Your task to perform on an android device: Go to Wikipedia Image 0: 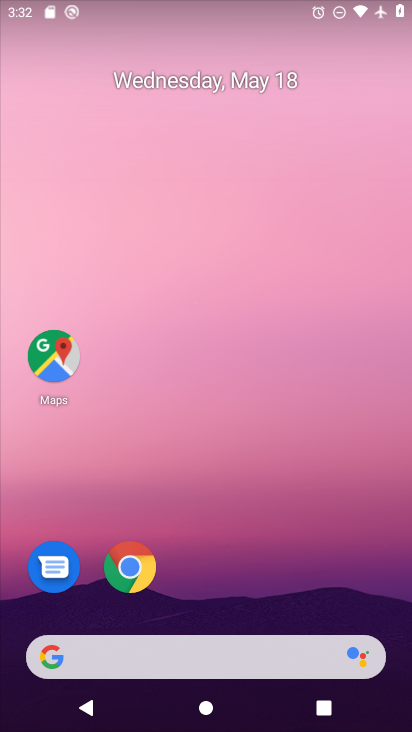
Step 0: click (121, 581)
Your task to perform on an android device: Go to Wikipedia Image 1: 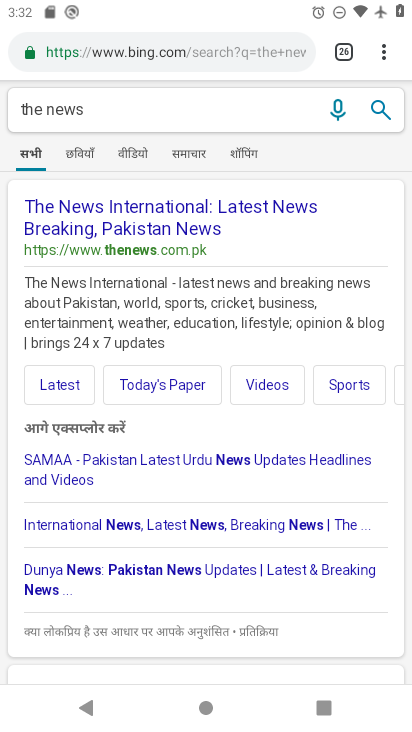
Step 1: click (373, 58)
Your task to perform on an android device: Go to Wikipedia Image 2: 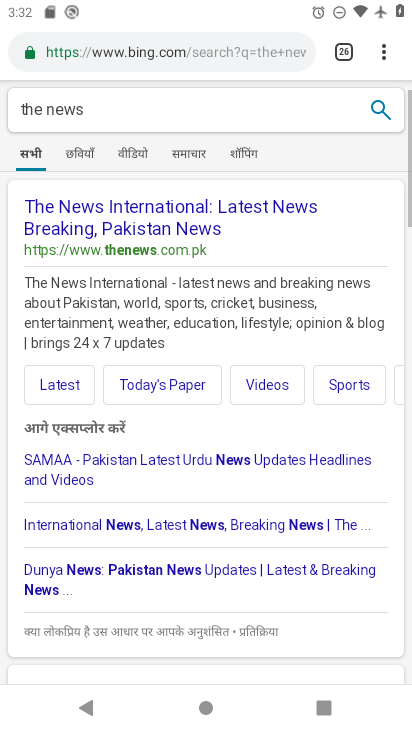
Step 2: click (381, 48)
Your task to perform on an android device: Go to Wikipedia Image 3: 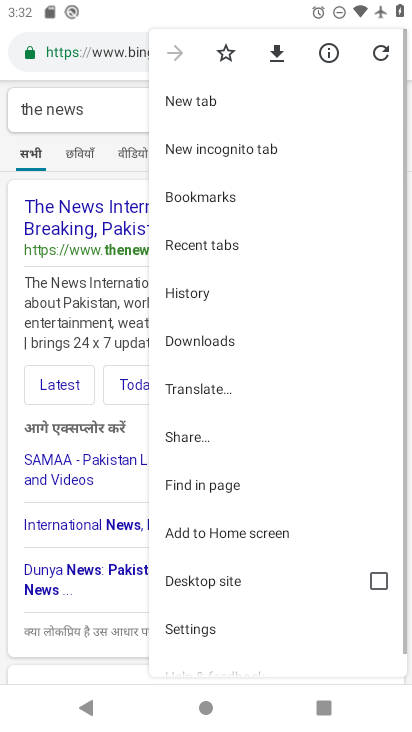
Step 3: click (213, 97)
Your task to perform on an android device: Go to Wikipedia Image 4: 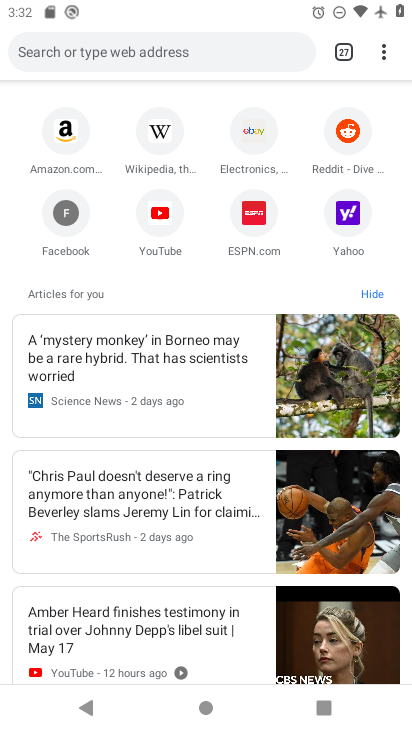
Step 4: click (159, 124)
Your task to perform on an android device: Go to Wikipedia Image 5: 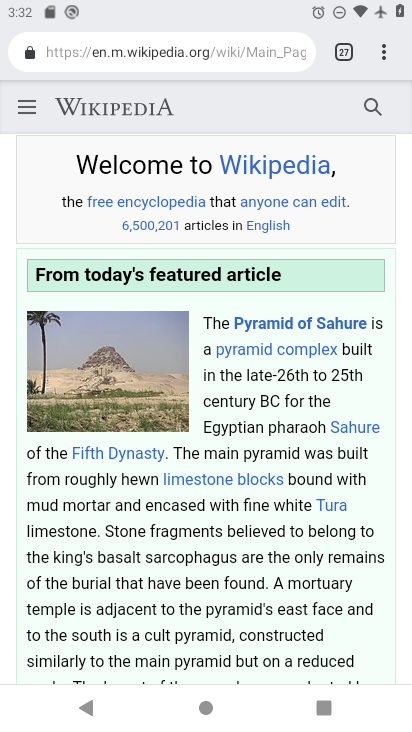
Step 5: task complete